Your task to perform on an android device: delete browsing data in the chrome app Image 0: 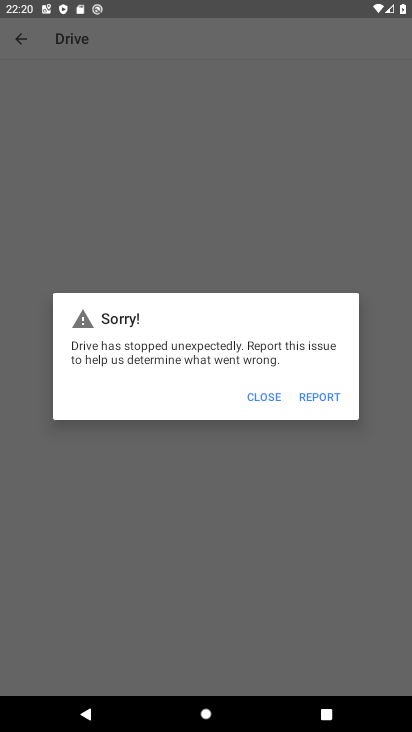
Step 0: press home button
Your task to perform on an android device: delete browsing data in the chrome app Image 1: 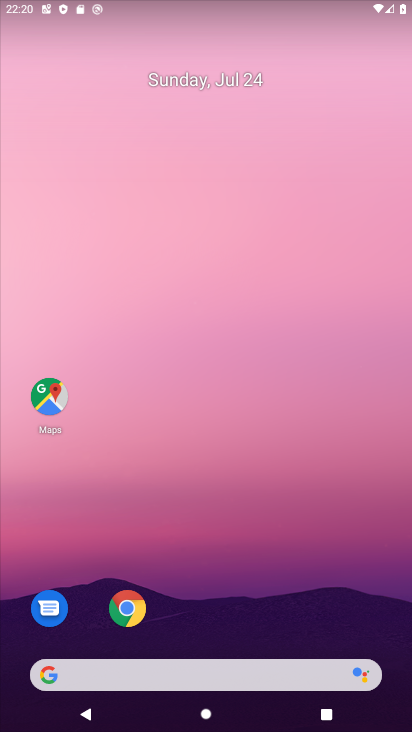
Step 1: click (134, 610)
Your task to perform on an android device: delete browsing data in the chrome app Image 2: 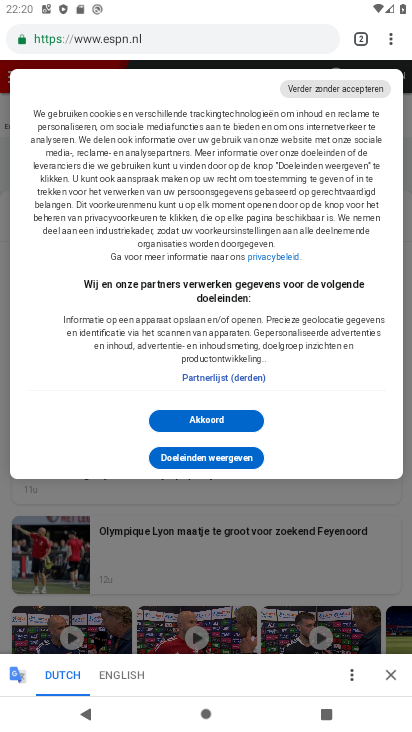
Step 2: click (389, 35)
Your task to perform on an android device: delete browsing data in the chrome app Image 3: 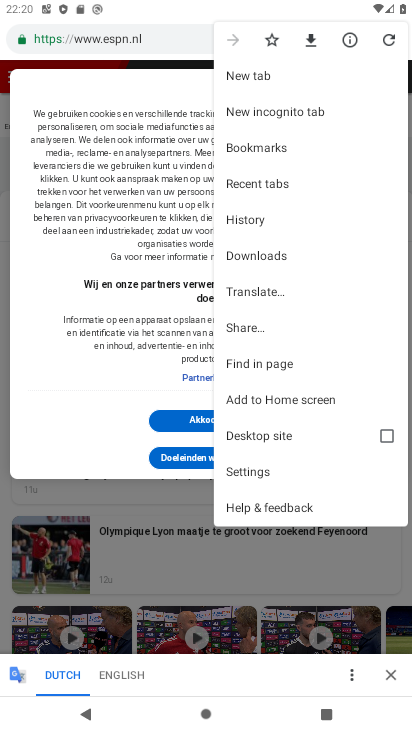
Step 3: click (252, 214)
Your task to perform on an android device: delete browsing data in the chrome app Image 4: 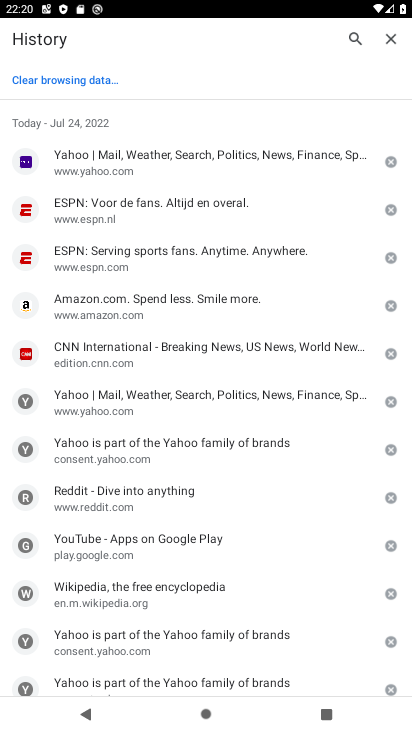
Step 4: click (60, 86)
Your task to perform on an android device: delete browsing data in the chrome app Image 5: 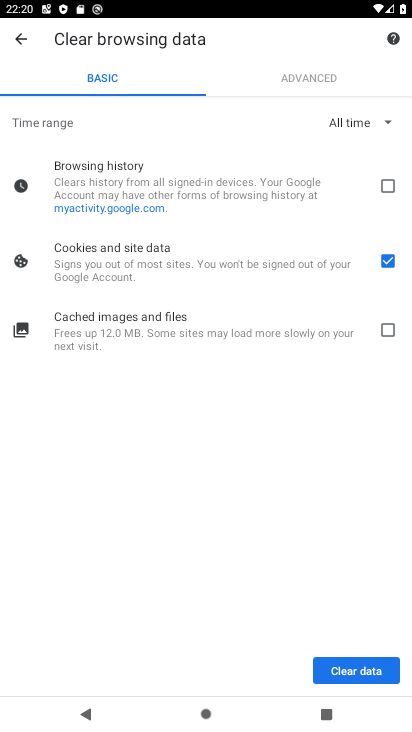
Step 5: click (394, 328)
Your task to perform on an android device: delete browsing data in the chrome app Image 6: 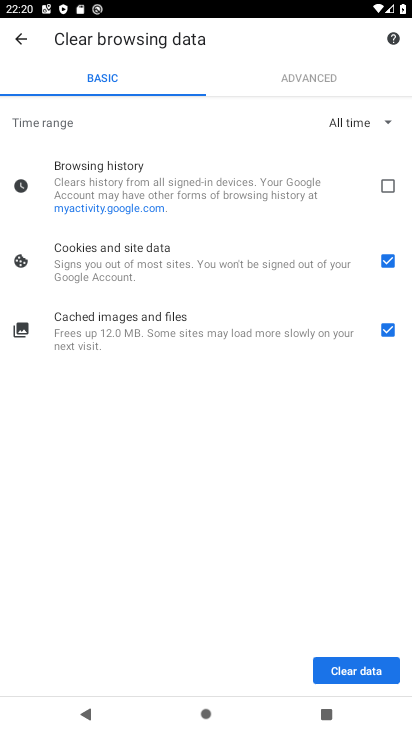
Step 6: click (380, 192)
Your task to perform on an android device: delete browsing data in the chrome app Image 7: 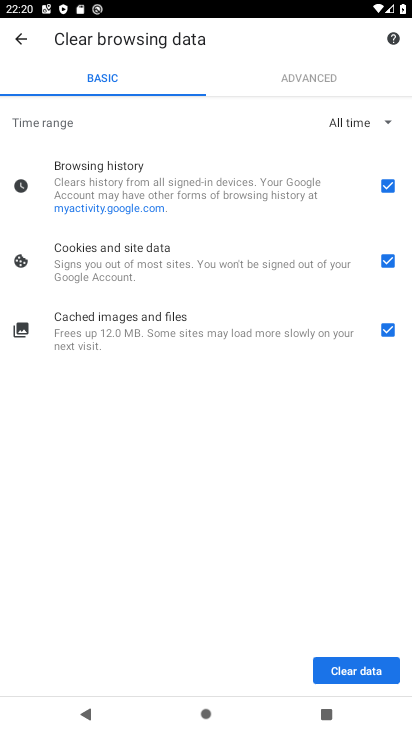
Step 7: click (337, 668)
Your task to perform on an android device: delete browsing data in the chrome app Image 8: 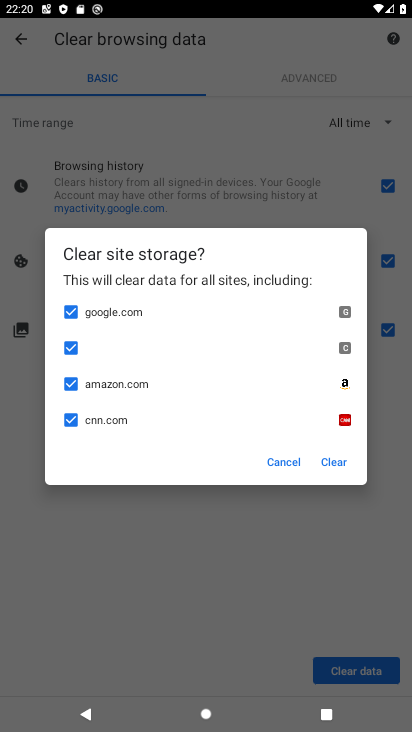
Step 8: click (338, 461)
Your task to perform on an android device: delete browsing data in the chrome app Image 9: 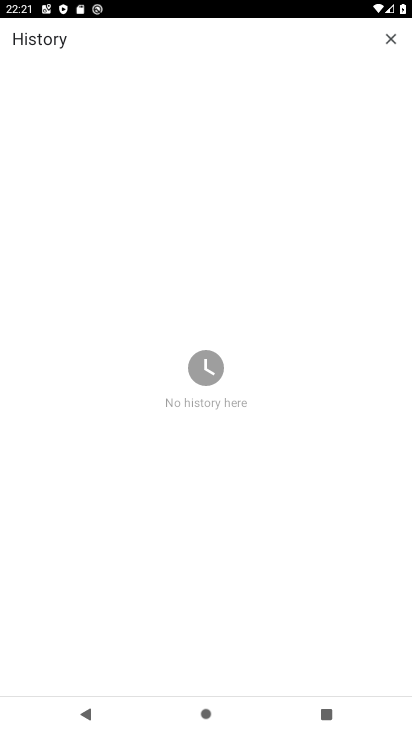
Step 9: task complete